Your task to perform on an android device: Open the calendar app, open the side menu, and click the "Day" option Image 0: 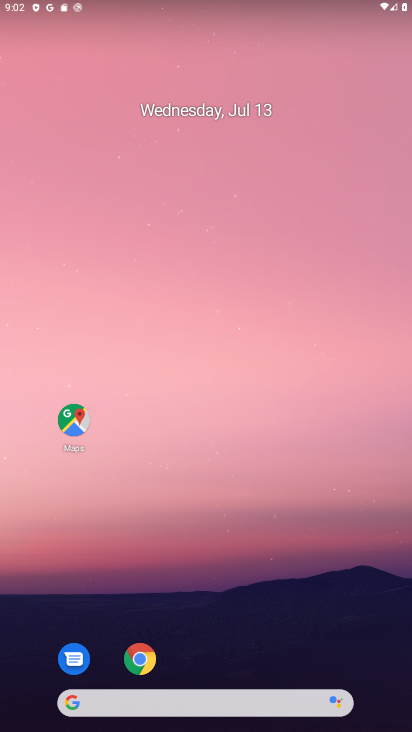
Step 0: drag from (221, 648) to (222, 82)
Your task to perform on an android device: Open the calendar app, open the side menu, and click the "Day" option Image 1: 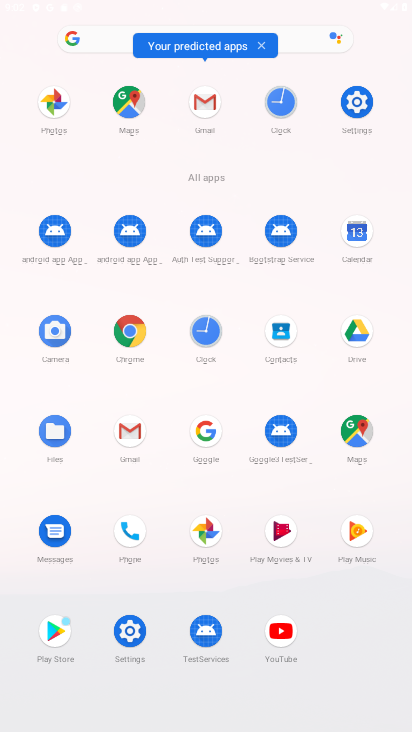
Step 1: click (347, 233)
Your task to perform on an android device: Open the calendar app, open the side menu, and click the "Day" option Image 2: 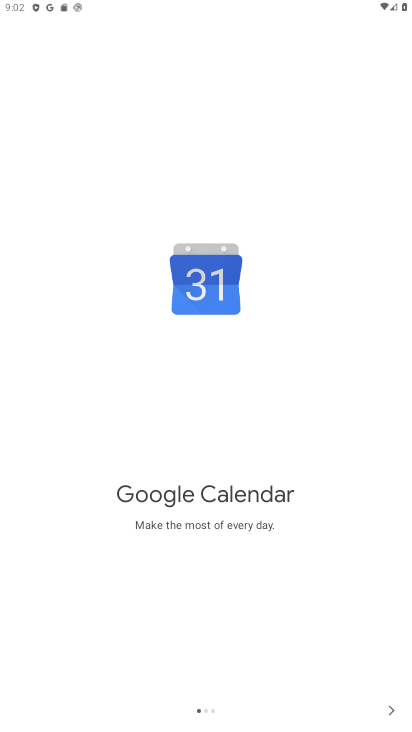
Step 2: click (401, 702)
Your task to perform on an android device: Open the calendar app, open the side menu, and click the "Day" option Image 3: 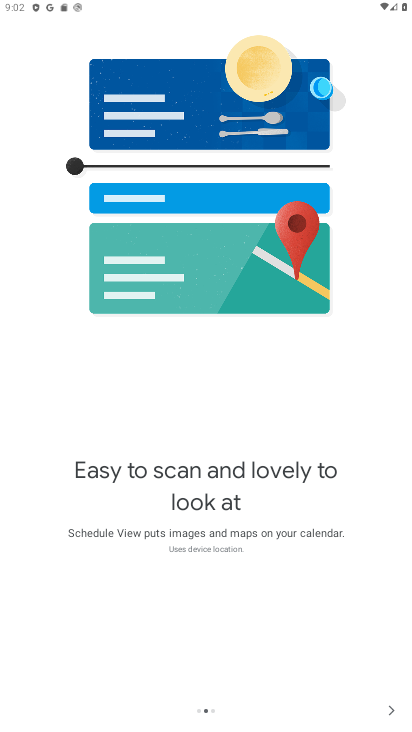
Step 3: click (393, 708)
Your task to perform on an android device: Open the calendar app, open the side menu, and click the "Day" option Image 4: 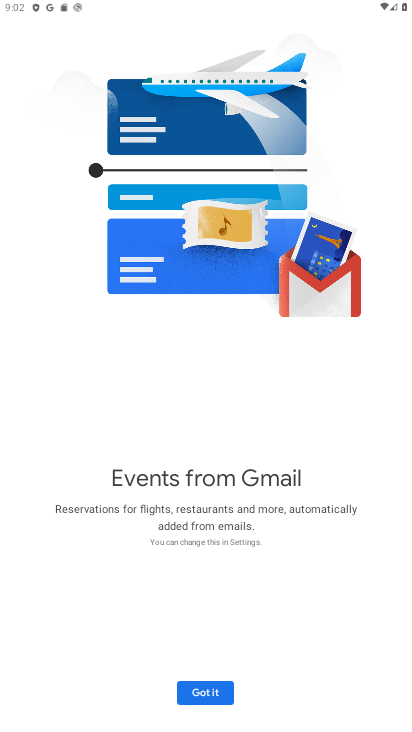
Step 4: click (218, 683)
Your task to perform on an android device: Open the calendar app, open the side menu, and click the "Day" option Image 5: 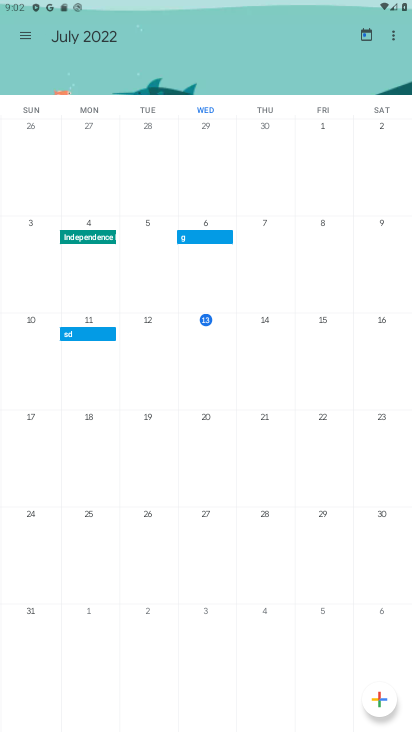
Step 5: click (19, 36)
Your task to perform on an android device: Open the calendar app, open the side menu, and click the "Day" option Image 6: 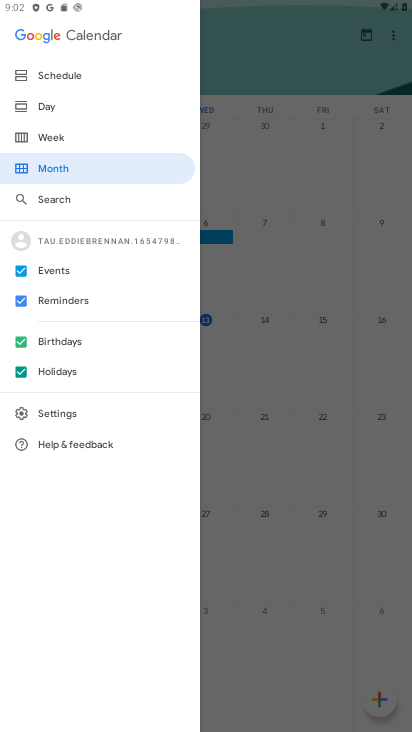
Step 6: click (53, 111)
Your task to perform on an android device: Open the calendar app, open the side menu, and click the "Day" option Image 7: 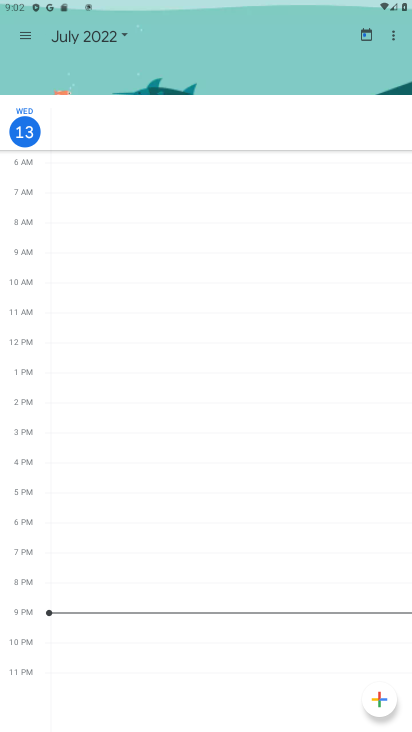
Step 7: task complete